Your task to perform on an android device: Open Google Image 0: 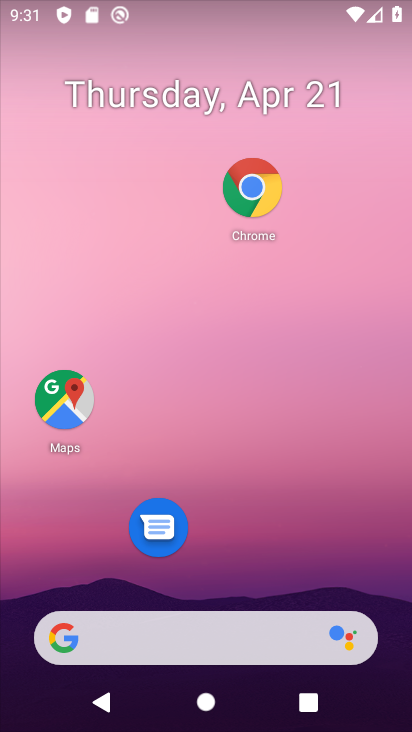
Step 0: drag from (257, 601) to (350, 192)
Your task to perform on an android device: Open Google Image 1: 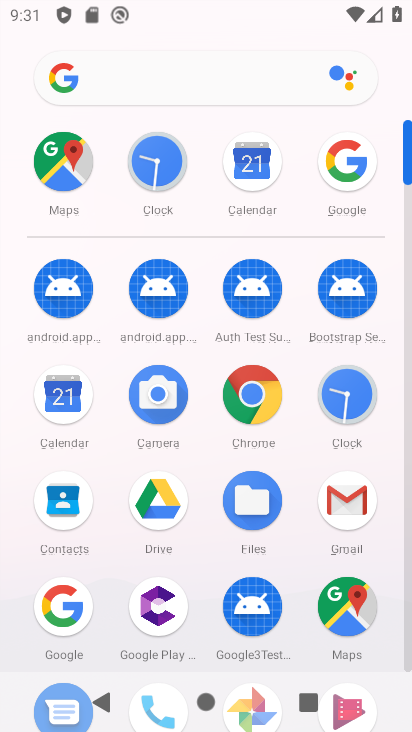
Step 1: click (59, 624)
Your task to perform on an android device: Open Google Image 2: 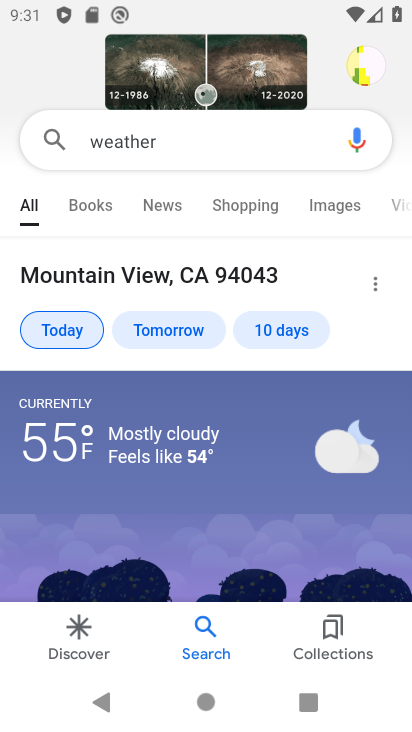
Step 2: task complete